Your task to perform on an android device: Open sound settings Image 0: 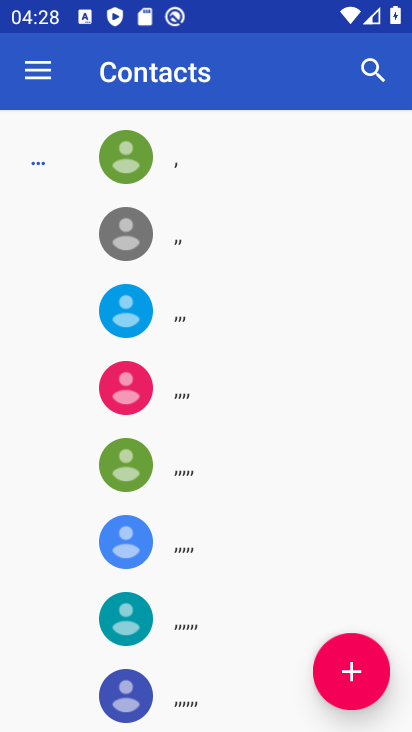
Step 0: press home button
Your task to perform on an android device: Open sound settings Image 1: 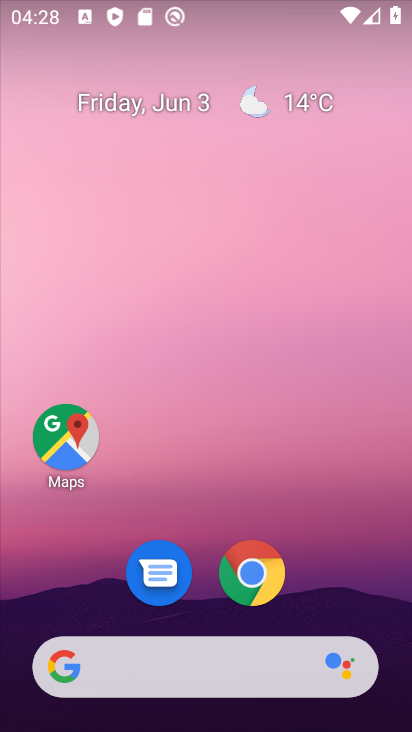
Step 1: drag from (273, 684) to (344, 11)
Your task to perform on an android device: Open sound settings Image 2: 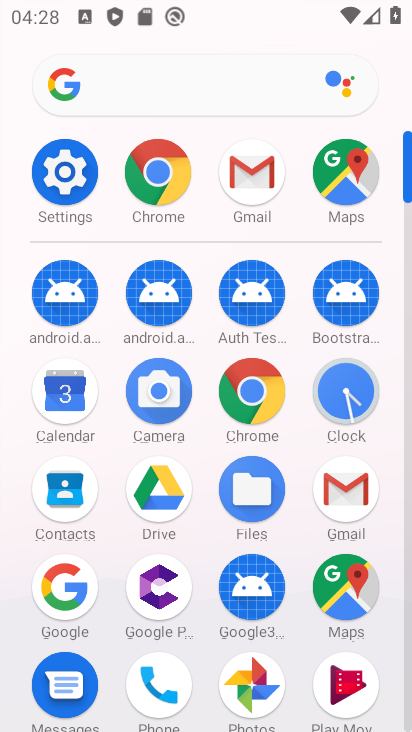
Step 2: click (63, 167)
Your task to perform on an android device: Open sound settings Image 3: 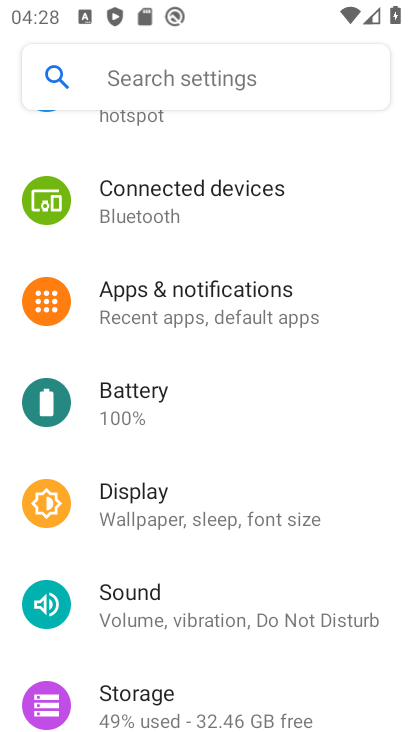
Step 3: click (220, 600)
Your task to perform on an android device: Open sound settings Image 4: 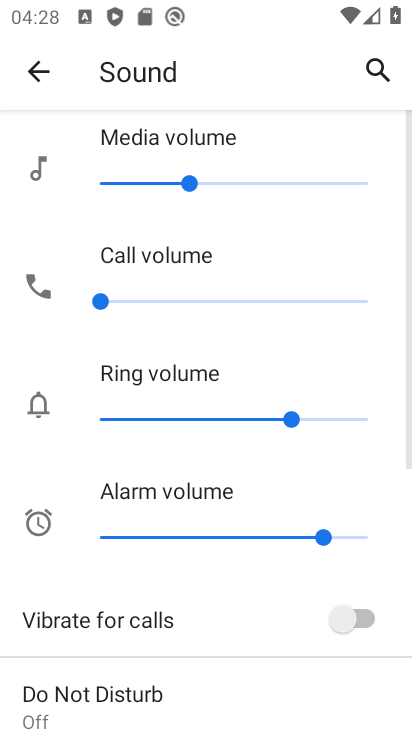
Step 4: task complete